Your task to perform on an android device: turn pop-ups off in chrome Image 0: 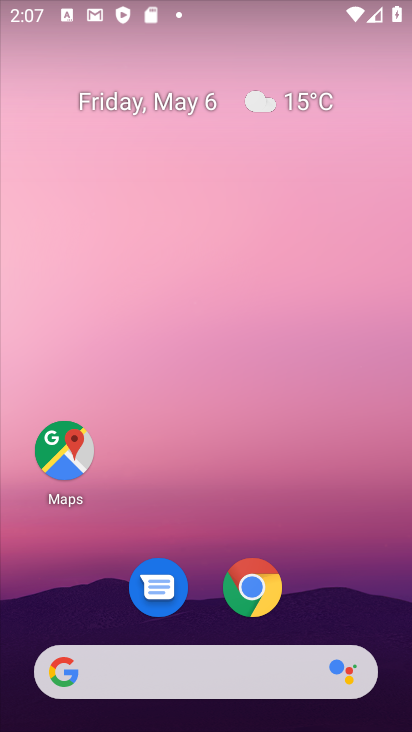
Step 0: drag from (345, 562) to (410, 167)
Your task to perform on an android device: turn pop-ups off in chrome Image 1: 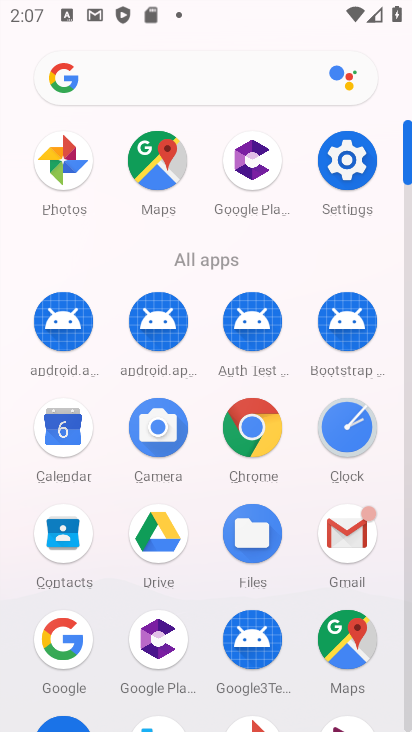
Step 1: click (250, 426)
Your task to perform on an android device: turn pop-ups off in chrome Image 2: 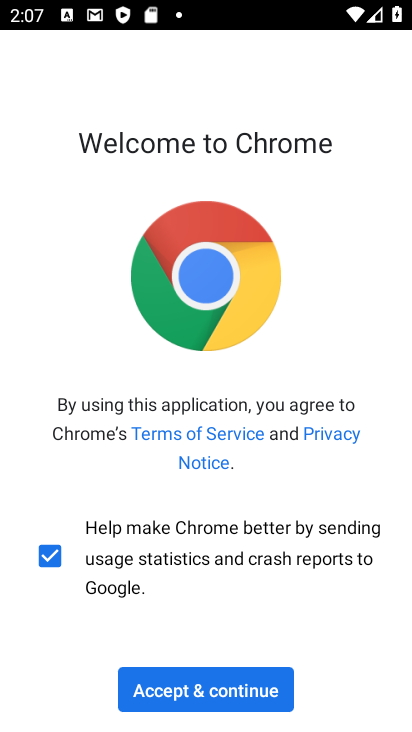
Step 2: click (174, 697)
Your task to perform on an android device: turn pop-ups off in chrome Image 3: 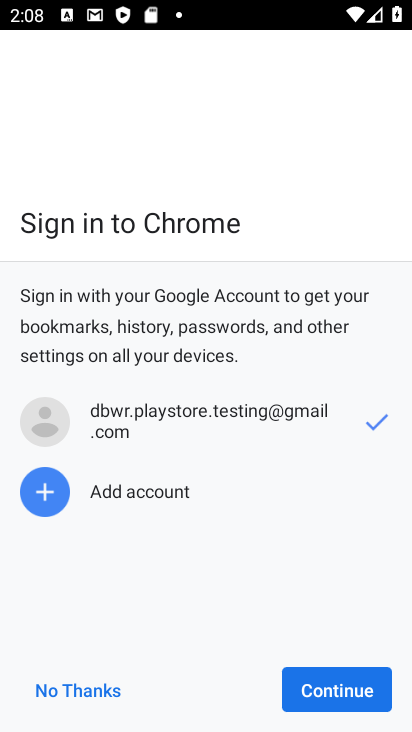
Step 3: click (370, 685)
Your task to perform on an android device: turn pop-ups off in chrome Image 4: 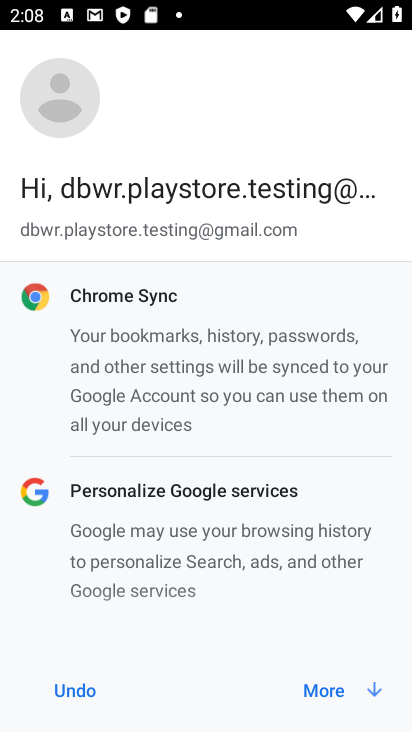
Step 4: click (312, 685)
Your task to perform on an android device: turn pop-ups off in chrome Image 5: 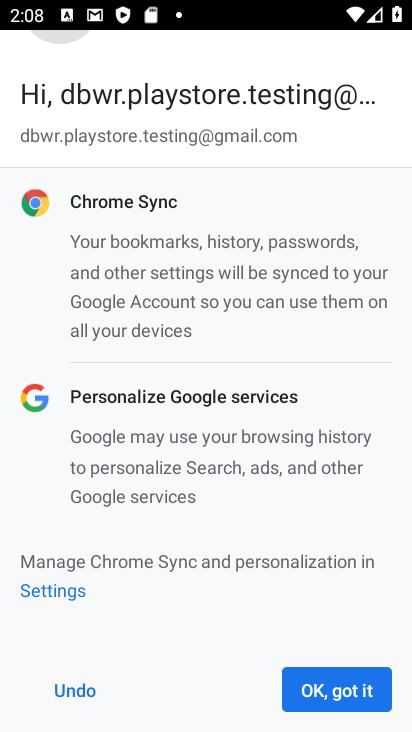
Step 5: click (319, 685)
Your task to perform on an android device: turn pop-ups off in chrome Image 6: 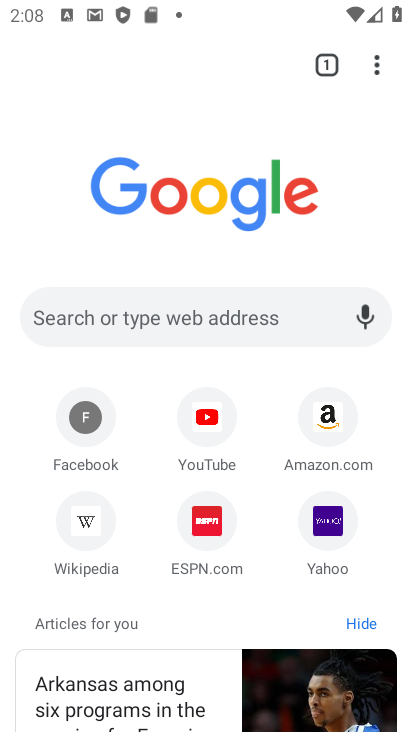
Step 6: drag from (379, 63) to (112, 545)
Your task to perform on an android device: turn pop-ups off in chrome Image 7: 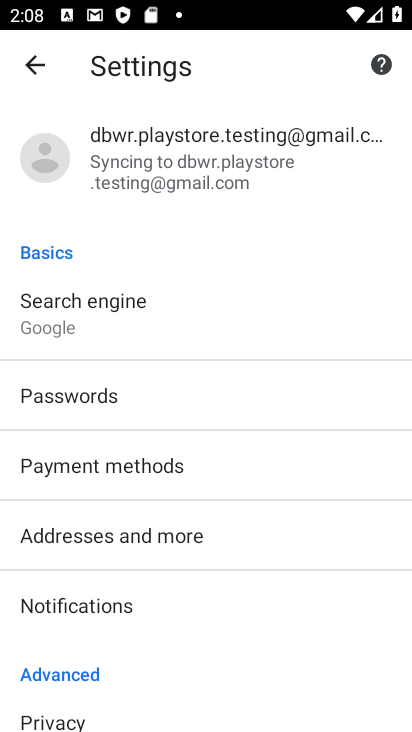
Step 7: drag from (168, 584) to (183, 260)
Your task to perform on an android device: turn pop-ups off in chrome Image 8: 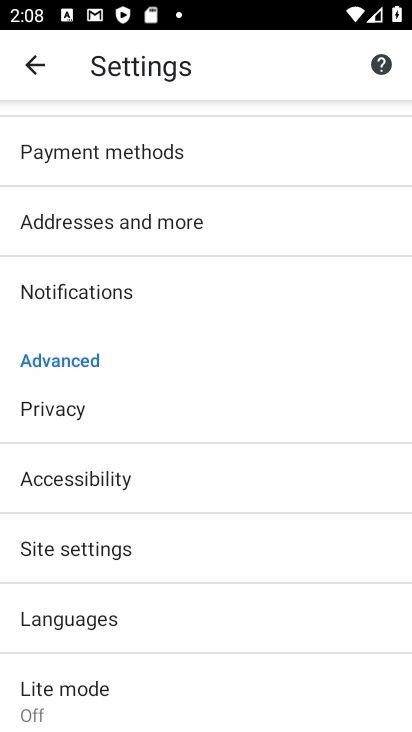
Step 8: drag from (106, 528) to (171, 253)
Your task to perform on an android device: turn pop-ups off in chrome Image 9: 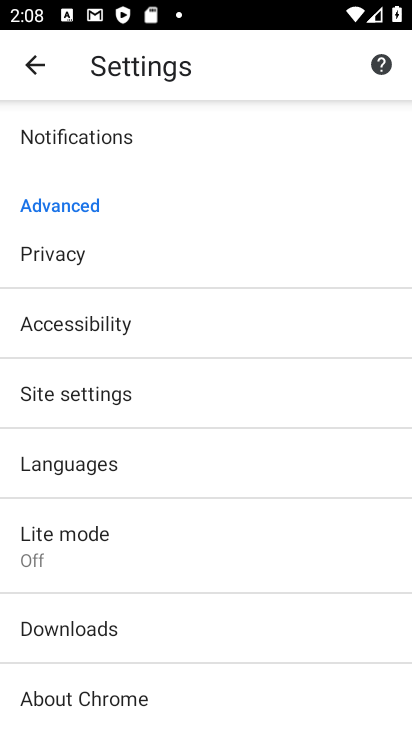
Step 9: click (96, 395)
Your task to perform on an android device: turn pop-ups off in chrome Image 10: 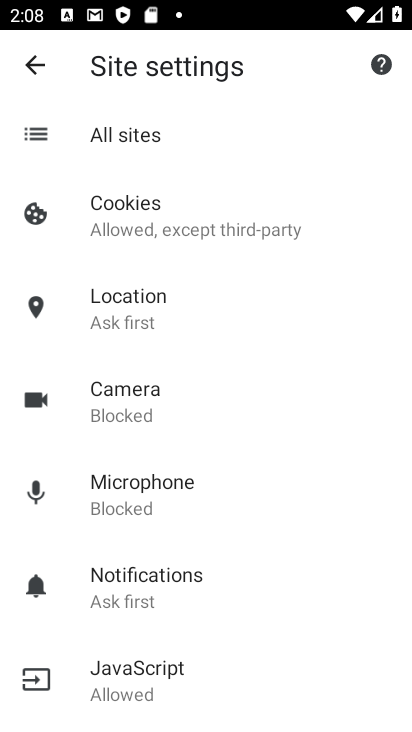
Step 10: drag from (165, 645) to (249, 304)
Your task to perform on an android device: turn pop-ups off in chrome Image 11: 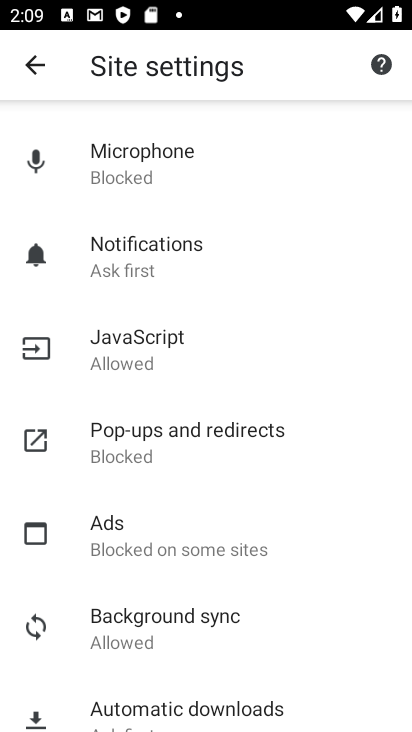
Step 11: click (157, 429)
Your task to perform on an android device: turn pop-ups off in chrome Image 12: 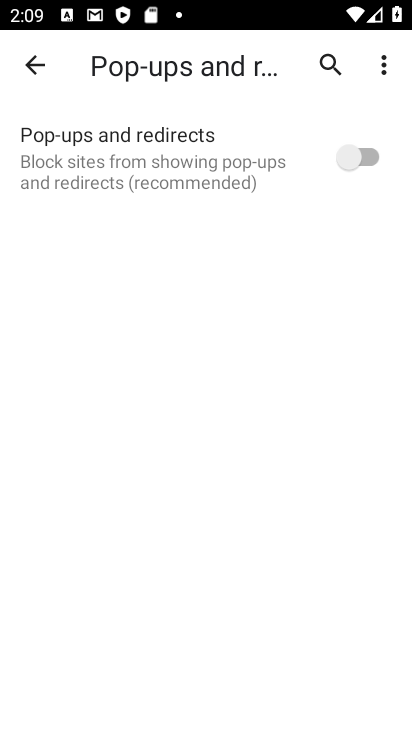
Step 12: task complete